Your task to perform on an android device: change text size in settings app Image 0: 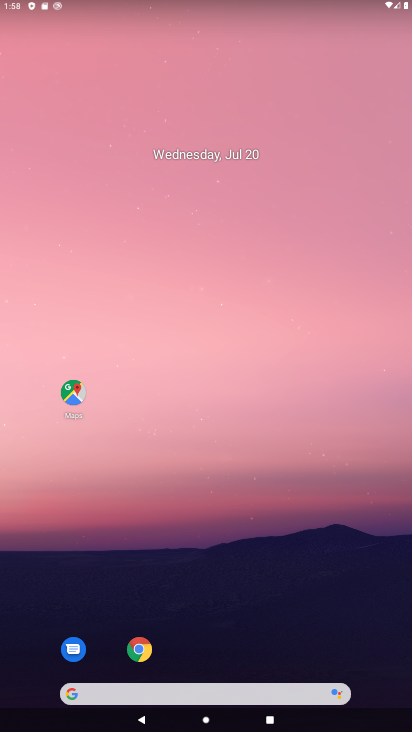
Step 0: drag from (213, 611) to (134, 273)
Your task to perform on an android device: change text size in settings app Image 1: 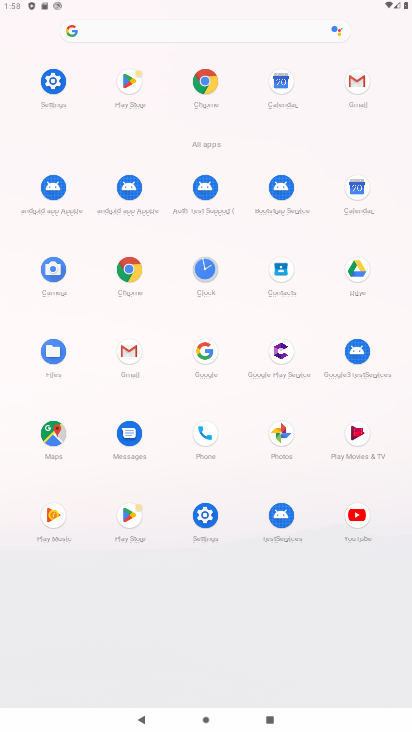
Step 1: click (211, 516)
Your task to perform on an android device: change text size in settings app Image 2: 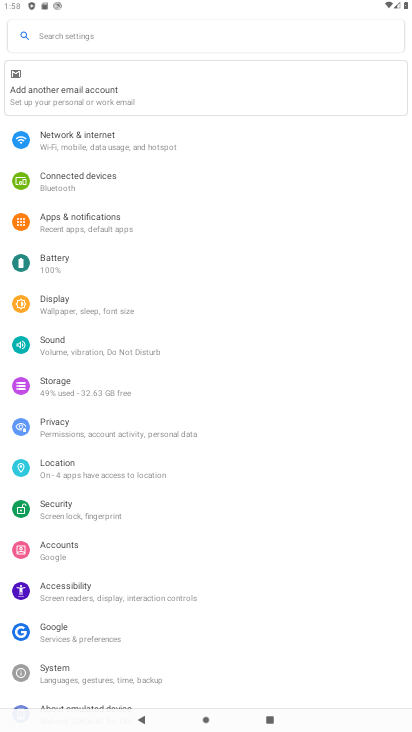
Step 2: task complete